Your task to perform on an android device: Add logitech g pro to the cart on newegg.com, then select checkout. Image 0: 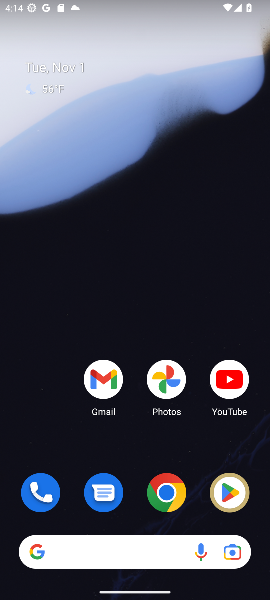
Step 0: click (164, 497)
Your task to perform on an android device: Add logitech g pro to the cart on newegg.com, then select checkout. Image 1: 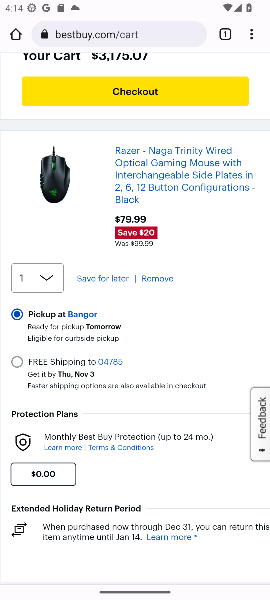
Step 1: click (93, 36)
Your task to perform on an android device: Add logitech g pro to the cart on newegg.com, then select checkout. Image 2: 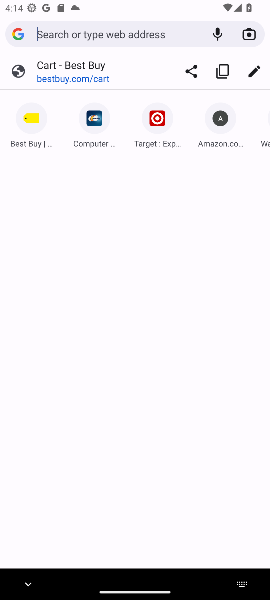
Step 2: type "newegg.com"
Your task to perform on an android device: Add logitech g pro to the cart on newegg.com, then select checkout. Image 3: 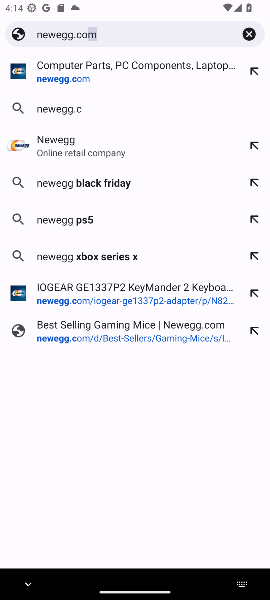
Step 3: type ""
Your task to perform on an android device: Add logitech g pro to the cart on newegg.com, then select checkout. Image 4: 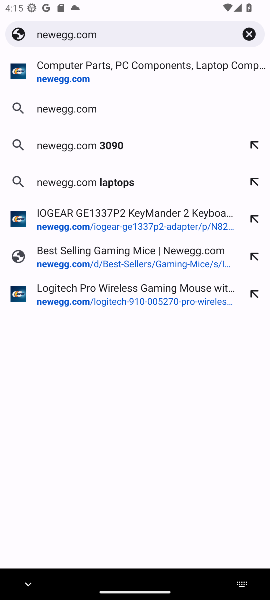
Step 4: click (107, 69)
Your task to perform on an android device: Add logitech g pro to the cart on newegg.com, then select checkout. Image 5: 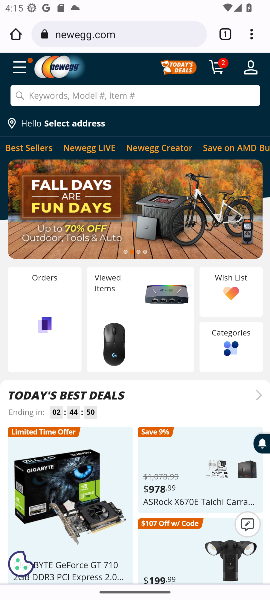
Step 5: click (228, 72)
Your task to perform on an android device: Add logitech g pro to the cart on newegg.com, then select checkout. Image 6: 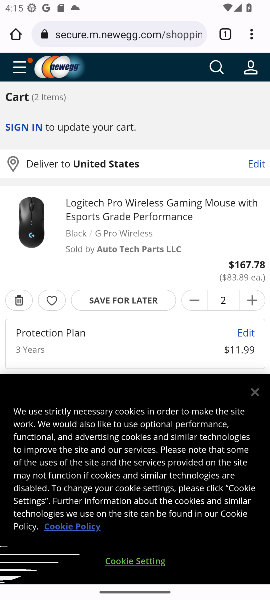
Step 6: click (12, 291)
Your task to perform on an android device: Add logitech g pro to the cart on newegg.com, then select checkout. Image 7: 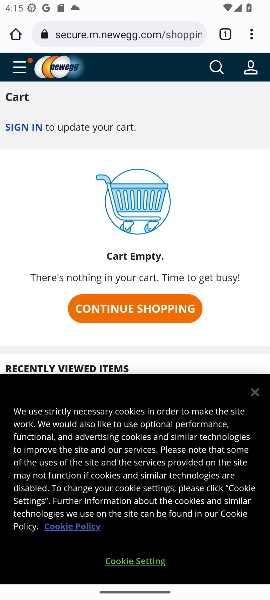
Step 7: click (215, 69)
Your task to perform on an android device: Add logitech g pro to the cart on newegg.com, then select checkout. Image 8: 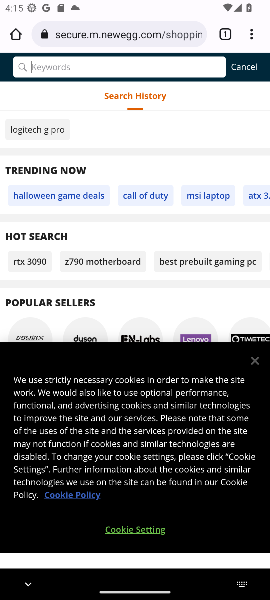
Step 8: click (156, 71)
Your task to perform on an android device: Add logitech g pro to the cart on newegg.com, then select checkout. Image 9: 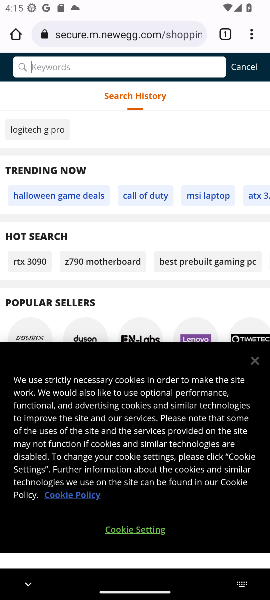
Step 9: type "logitech g pro"
Your task to perform on an android device: Add logitech g pro to the cart on newegg.com, then select checkout. Image 10: 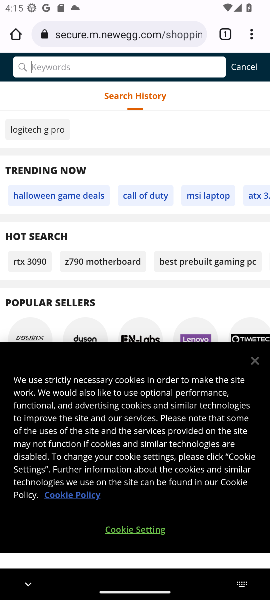
Step 10: type ""
Your task to perform on an android device: Add logitech g pro to the cart on newegg.com, then select checkout. Image 11: 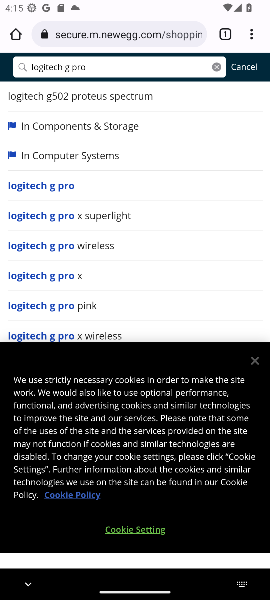
Step 11: click (63, 186)
Your task to perform on an android device: Add logitech g pro to the cart on newegg.com, then select checkout. Image 12: 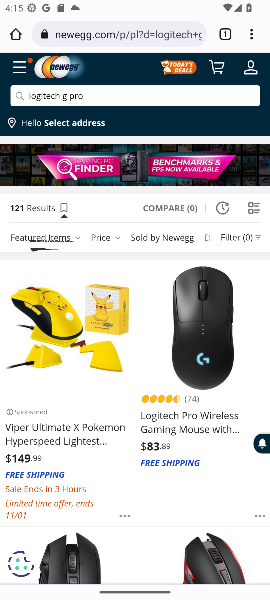
Step 12: click (191, 311)
Your task to perform on an android device: Add logitech g pro to the cart on newegg.com, then select checkout. Image 13: 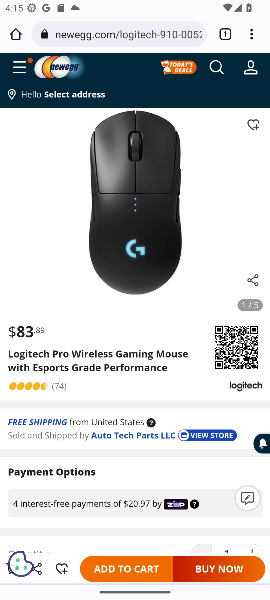
Step 13: click (110, 568)
Your task to perform on an android device: Add logitech g pro to the cart on newegg.com, then select checkout. Image 14: 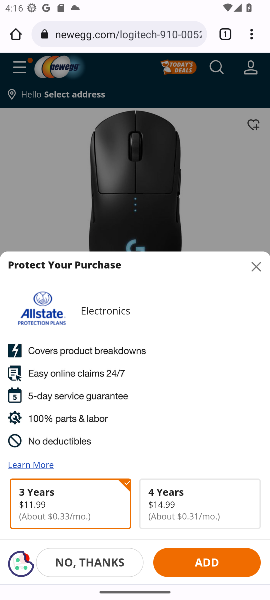
Step 14: click (195, 562)
Your task to perform on an android device: Add logitech g pro to the cart on newegg.com, then select checkout. Image 15: 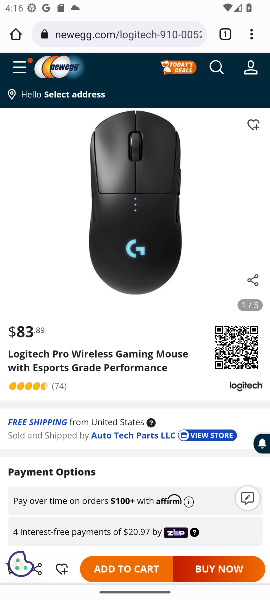
Step 15: drag from (203, 358) to (200, 159)
Your task to perform on an android device: Add logitech g pro to the cart on newegg.com, then select checkout. Image 16: 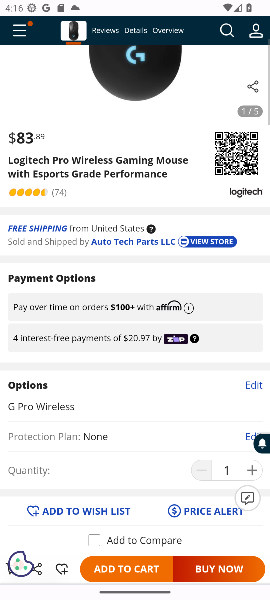
Step 16: drag from (192, 263) to (196, 488)
Your task to perform on an android device: Add logitech g pro to the cart on newegg.com, then select checkout. Image 17: 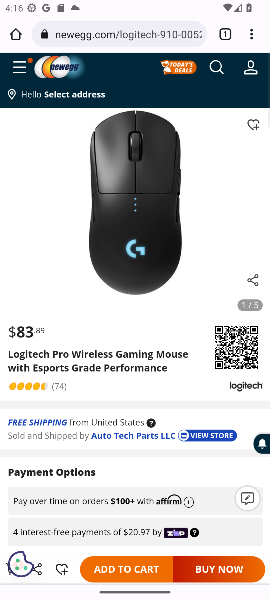
Step 17: drag from (210, 227) to (62, 206)
Your task to perform on an android device: Add logitech g pro to the cart on newegg.com, then select checkout. Image 18: 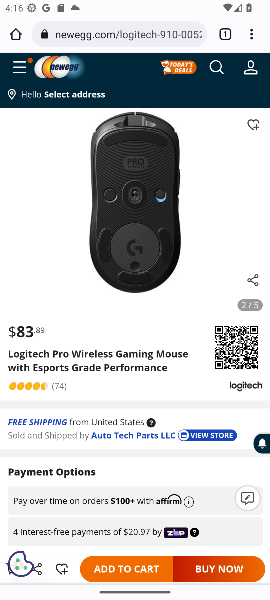
Step 18: drag from (227, 201) to (48, 206)
Your task to perform on an android device: Add logitech g pro to the cart on newegg.com, then select checkout. Image 19: 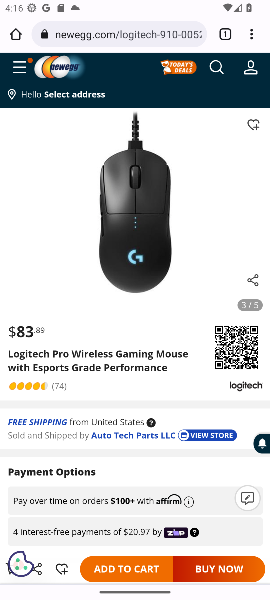
Step 19: drag from (207, 225) to (16, 226)
Your task to perform on an android device: Add logitech g pro to the cart on newegg.com, then select checkout. Image 20: 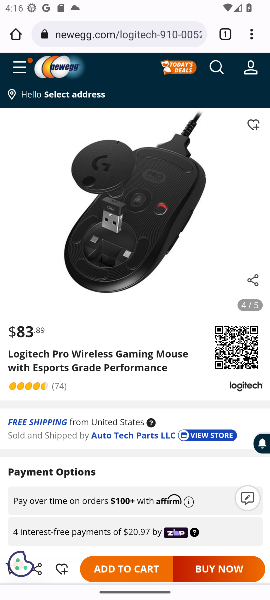
Step 20: drag from (191, 226) to (43, 221)
Your task to perform on an android device: Add logitech g pro to the cart on newegg.com, then select checkout. Image 21: 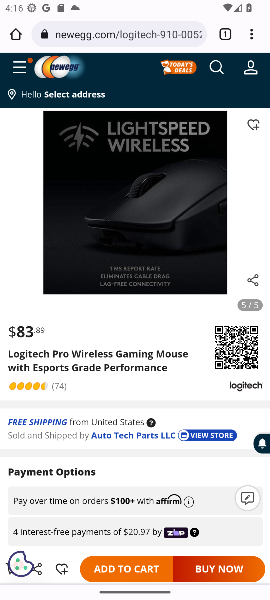
Step 21: drag from (194, 242) to (26, 243)
Your task to perform on an android device: Add logitech g pro to the cart on newegg.com, then select checkout. Image 22: 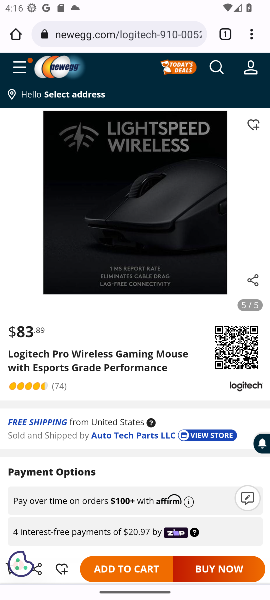
Step 22: drag from (154, 443) to (132, 153)
Your task to perform on an android device: Add logitech g pro to the cart on newegg.com, then select checkout. Image 23: 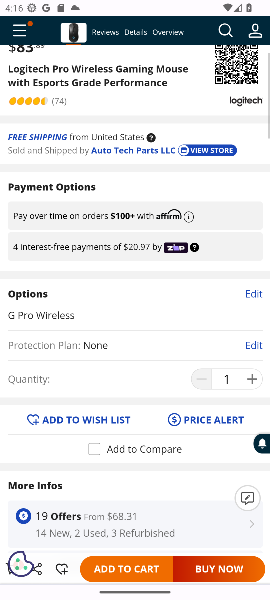
Step 23: drag from (135, 302) to (149, 139)
Your task to perform on an android device: Add logitech g pro to the cart on newegg.com, then select checkout. Image 24: 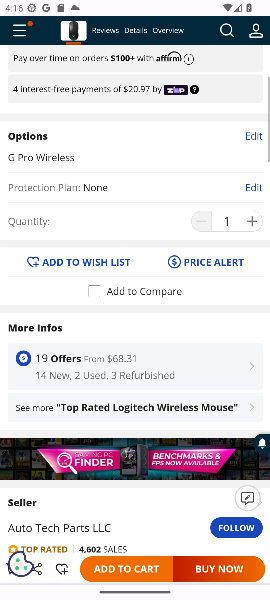
Step 24: drag from (164, 337) to (136, 193)
Your task to perform on an android device: Add logitech g pro to the cart on newegg.com, then select checkout. Image 25: 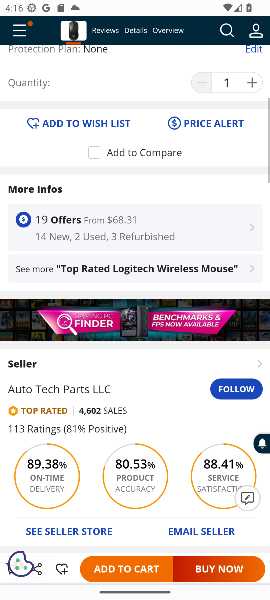
Step 25: drag from (126, 345) to (121, 250)
Your task to perform on an android device: Add logitech g pro to the cart on newegg.com, then select checkout. Image 26: 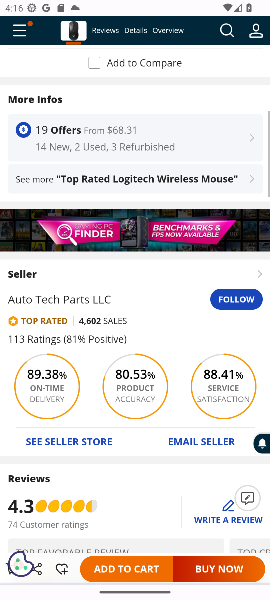
Step 26: drag from (142, 377) to (135, 256)
Your task to perform on an android device: Add logitech g pro to the cart on newegg.com, then select checkout. Image 27: 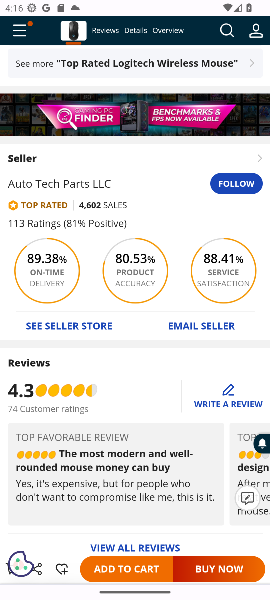
Step 27: click (141, 259)
Your task to perform on an android device: Add logitech g pro to the cart on newegg.com, then select checkout. Image 28: 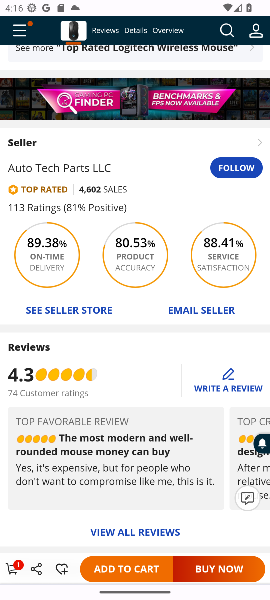
Step 28: drag from (176, 345) to (204, 92)
Your task to perform on an android device: Add logitech g pro to the cart on newegg.com, then select checkout. Image 29: 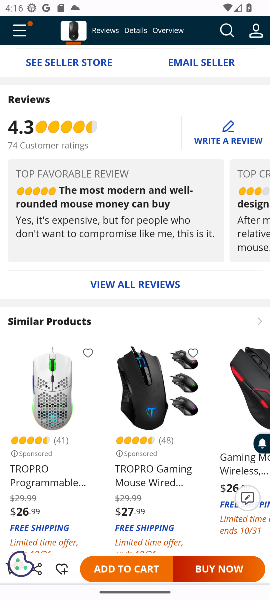
Step 29: drag from (161, 360) to (175, 213)
Your task to perform on an android device: Add logitech g pro to the cart on newegg.com, then select checkout. Image 30: 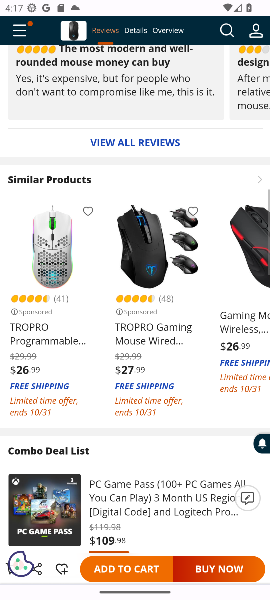
Step 30: drag from (161, 352) to (198, 189)
Your task to perform on an android device: Add logitech g pro to the cart on newegg.com, then select checkout. Image 31: 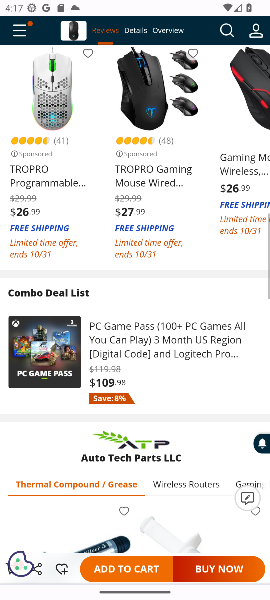
Step 31: drag from (168, 360) to (195, 213)
Your task to perform on an android device: Add logitech g pro to the cart on newegg.com, then select checkout. Image 32: 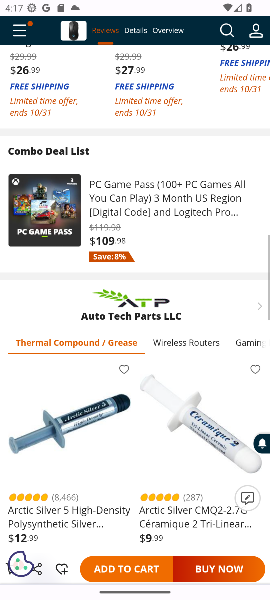
Step 32: drag from (169, 347) to (191, 259)
Your task to perform on an android device: Add logitech g pro to the cart on newegg.com, then select checkout. Image 33: 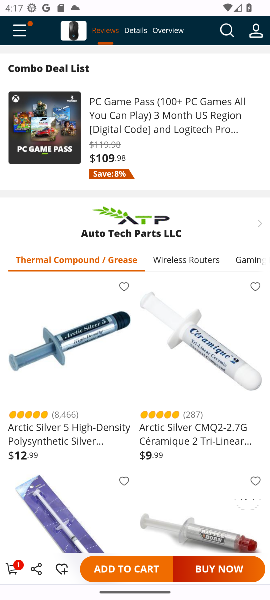
Step 33: drag from (178, 350) to (196, 217)
Your task to perform on an android device: Add logitech g pro to the cart on newegg.com, then select checkout. Image 34: 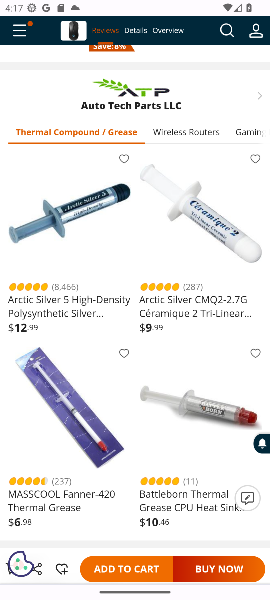
Step 34: drag from (203, 322) to (228, 192)
Your task to perform on an android device: Add logitech g pro to the cart on newegg.com, then select checkout. Image 35: 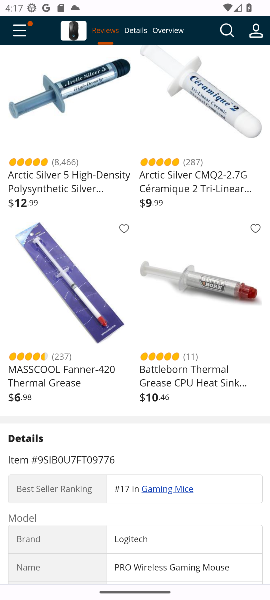
Step 35: drag from (209, 272) to (214, 157)
Your task to perform on an android device: Add logitech g pro to the cart on newegg.com, then select checkout. Image 36: 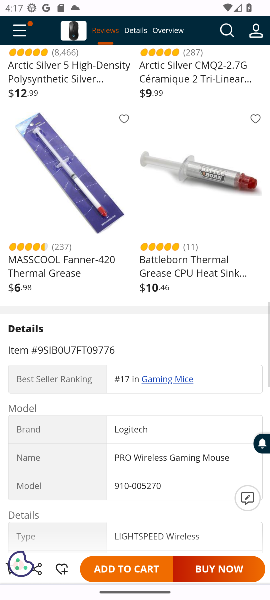
Step 36: drag from (200, 309) to (185, 153)
Your task to perform on an android device: Add logitech g pro to the cart on newegg.com, then select checkout. Image 37: 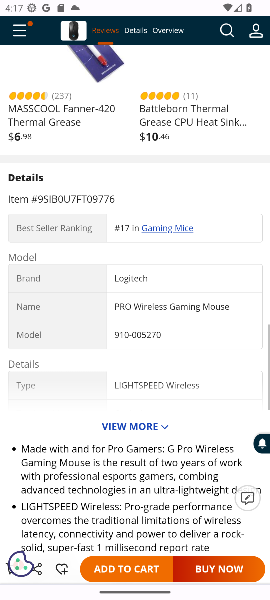
Step 37: drag from (167, 317) to (170, 132)
Your task to perform on an android device: Add logitech g pro to the cart on newegg.com, then select checkout. Image 38: 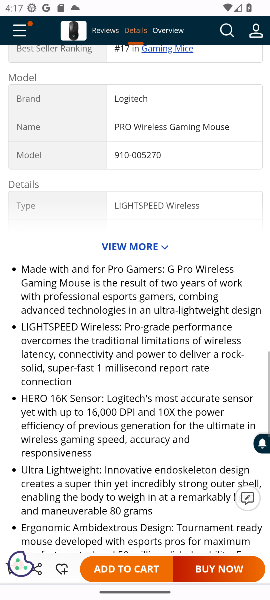
Step 38: drag from (147, 313) to (155, 178)
Your task to perform on an android device: Add logitech g pro to the cart on newegg.com, then select checkout. Image 39: 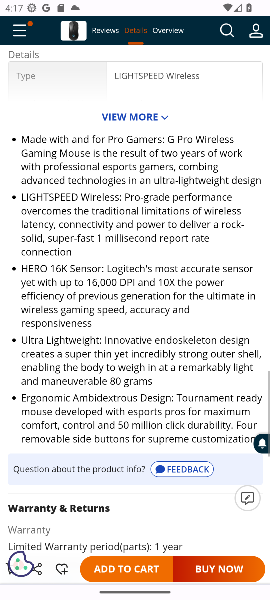
Step 39: drag from (141, 308) to (159, 209)
Your task to perform on an android device: Add logitech g pro to the cart on newegg.com, then select checkout. Image 40: 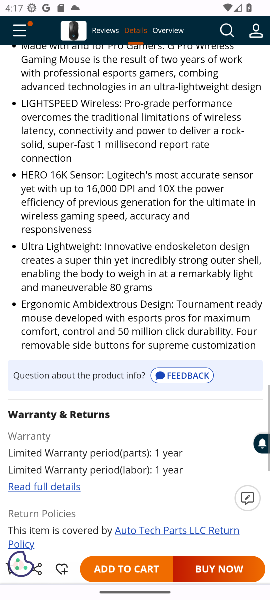
Step 40: drag from (149, 277) to (177, 194)
Your task to perform on an android device: Add logitech g pro to the cart on newegg.com, then select checkout. Image 41: 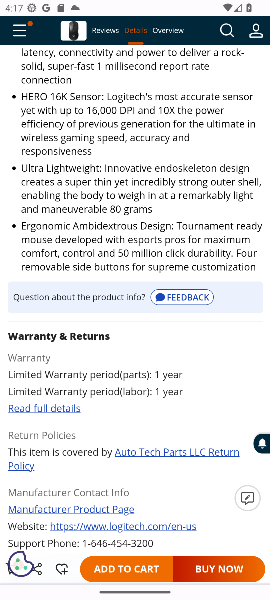
Step 41: drag from (122, 381) to (153, 224)
Your task to perform on an android device: Add logitech g pro to the cart on newegg.com, then select checkout. Image 42: 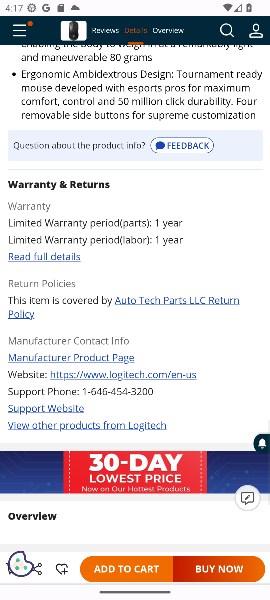
Step 42: drag from (126, 359) to (137, 290)
Your task to perform on an android device: Add logitech g pro to the cart on newegg.com, then select checkout. Image 43: 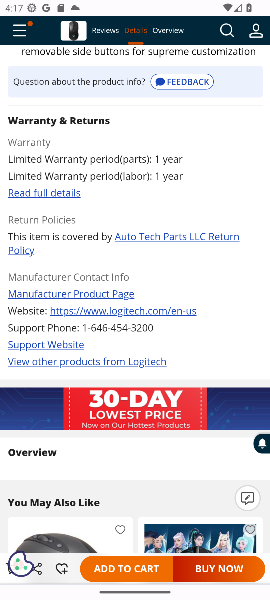
Step 43: drag from (111, 390) to (150, 250)
Your task to perform on an android device: Add logitech g pro to the cart on newegg.com, then select checkout. Image 44: 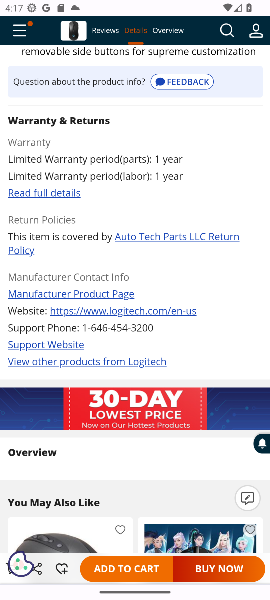
Step 44: drag from (128, 318) to (157, 224)
Your task to perform on an android device: Add logitech g pro to the cart on newegg.com, then select checkout. Image 45: 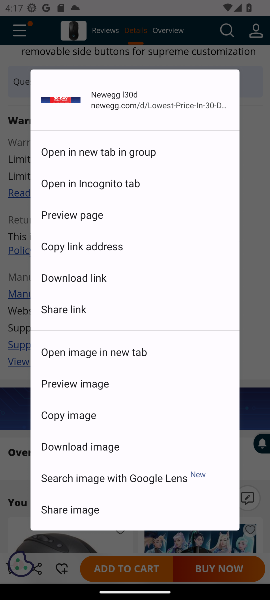
Step 45: drag from (94, 345) to (173, 172)
Your task to perform on an android device: Add logitech g pro to the cart on newegg.com, then select checkout. Image 46: 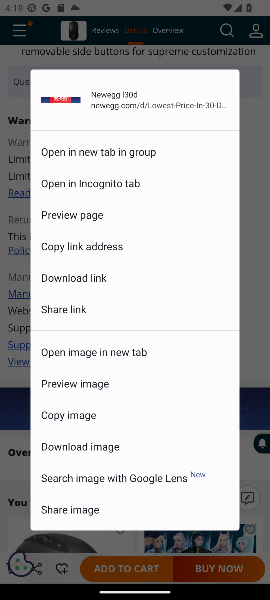
Step 46: drag from (156, 193) to (176, 126)
Your task to perform on an android device: Add logitech g pro to the cart on newegg.com, then select checkout. Image 47: 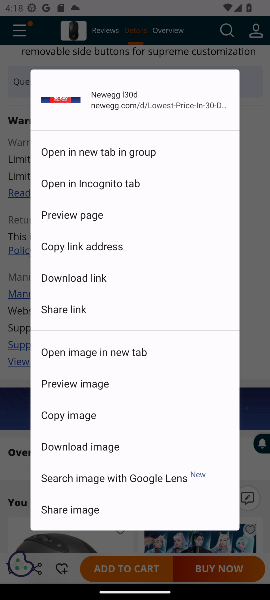
Step 47: click (250, 278)
Your task to perform on an android device: Add logitech g pro to the cart on newegg.com, then select checkout. Image 48: 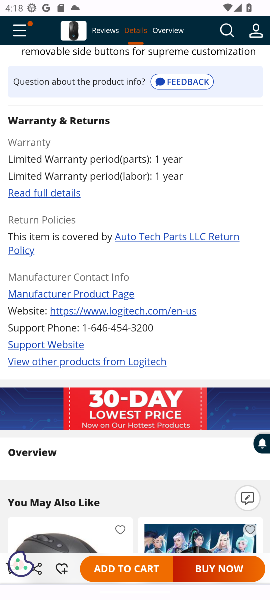
Step 48: click (250, 278)
Your task to perform on an android device: Add logitech g pro to the cart on newegg.com, then select checkout. Image 49: 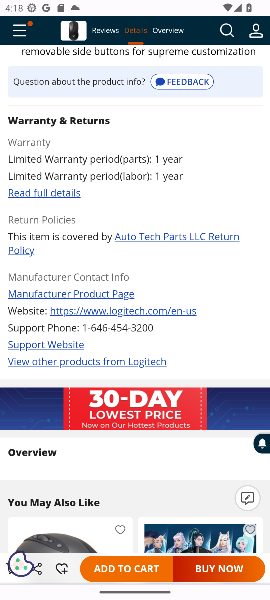
Step 49: drag from (221, 318) to (256, 216)
Your task to perform on an android device: Add logitech g pro to the cart on newegg.com, then select checkout. Image 50: 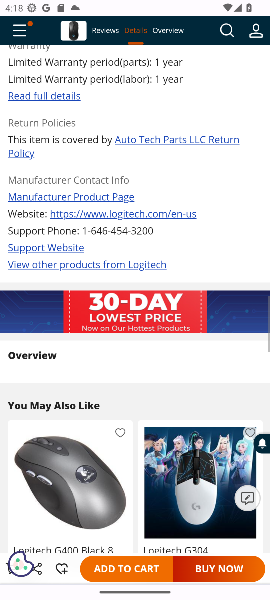
Step 50: drag from (228, 154) to (244, 392)
Your task to perform on an android device: Add logitech g pro to the cart on newegg.com, then select checkout. Image 51: 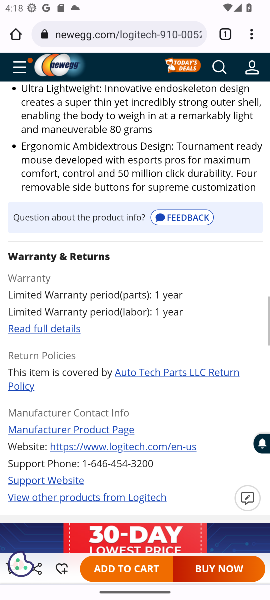
Step 51: drag from (252, 127) to (216, 358)
Your task to perform on an android device: Add logitech g pro to the cart on newegg.com, then select checkout. Image 52: 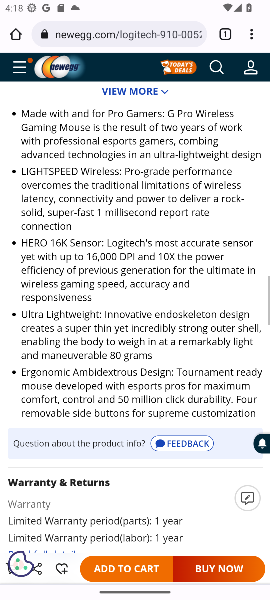
Step 52: drag from (213, 138) to (229, 330)
Your task to perform on an android device: Add logitech g pro to the cart on newegg.com, then select checkout. Image 53: 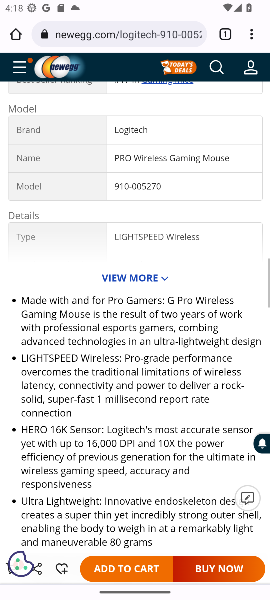
Step 53: drag from (241, 175) to (256, 319)
Your task to perform on an android device: Add logitech g pro to the cart on newegg.com, then select checkout. Image 54: 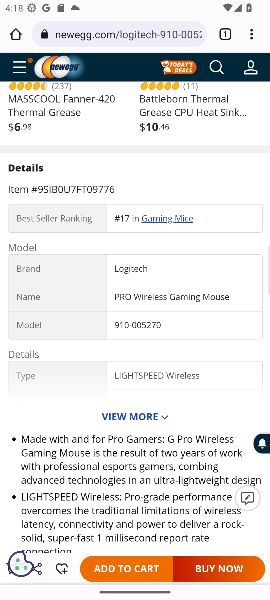
Step 54: drag from (232, 180) to (231, 319)
Your task to perform on an android device: Add logitech g pro to the cart on newegg.com, then select checkout. Image 55: 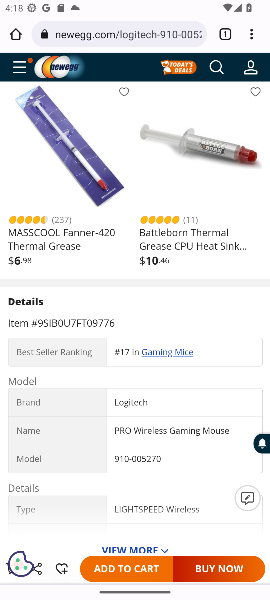
Step 55: drag from (178, 124) to (168, 348)
Your task to perform on an android device: Add logitech g pro to the cart on newegg.com, then select checkout. Image 56: 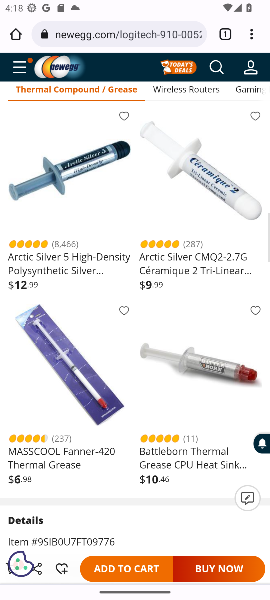
Step 56: drag from (178, 177) to (177, 370)
Your task to perform on an android device: Add logitech g pro to the cart on newegg.com, then select checkout. Image 57: 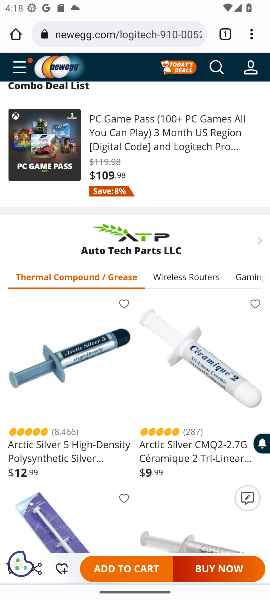
Step 57: drag from (113, 66) to (120, 440)
Your task to perform on an android device: Add logitech g pro to the cart on newegg.com, then select checkout. Image 58: 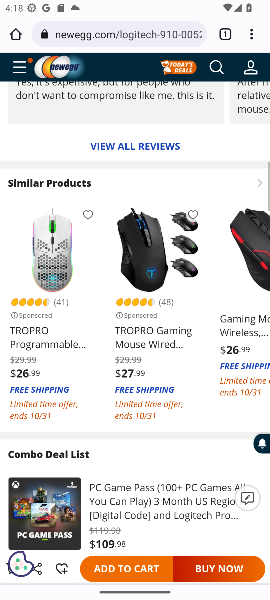
Step 58: drag from (124, 396) to (140, 538)
Your task to perform on an android device: Add logitech g pro to the cart on newegg.com, then select checkout. Image 59: 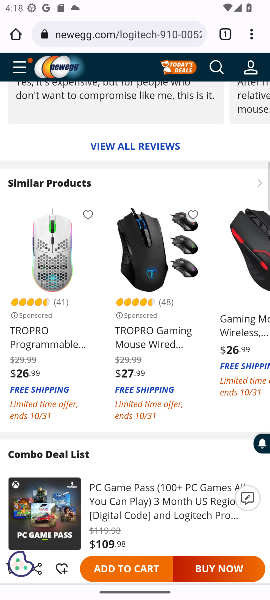
Step 59: drag from (101, 361) to (108, 542)
Your task to perform on an android device: Add logitech g pro to the cart on newegg.com, then select checkout. Image 60: 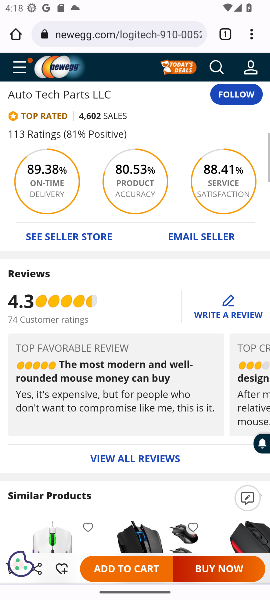
Step 60: drag from (92, 280) to (109, 487)
Your task to perform on an android device: Add logitech g pro to the cart on newegg.com, then select checkout. Image 61: 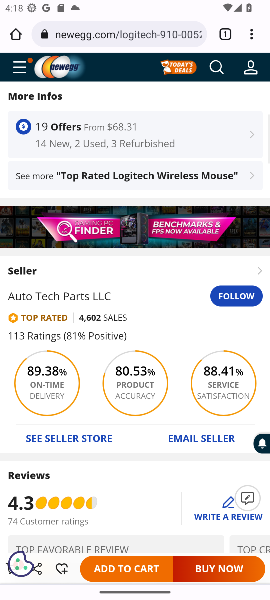
Step 61: drag from (139, 285) to (135, 483)
Your task to perform on an android device: Add logitech g pro to the cart on newegg.com, then select checkout. Image 62: 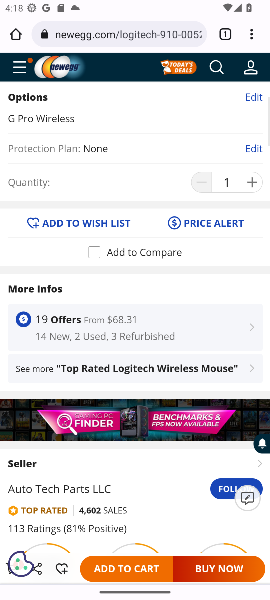
Step 62: drag from (133, 368) to (125, 526)
Your task to perform on an android device: Add logitech g pro to the cart on newegg.com, then select checkout. Image 63: 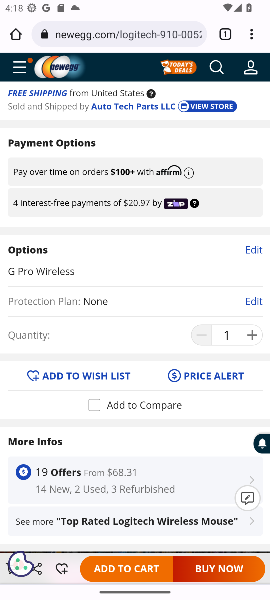
Step 63: click (120, 467)
Your task to perform on an android device: Add logitech g pro to the cart on newegg.com, then select checkout. Image 64: 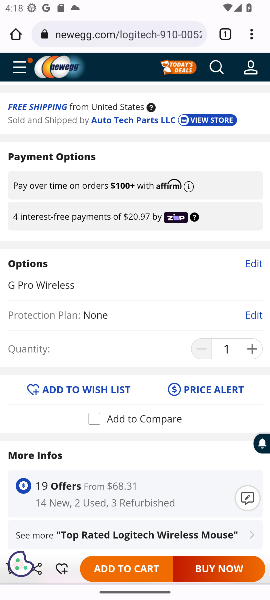
Step 64: drag from (159, 229) to (169, 510)
Your task to perform on an android device: Add logitech g pro to the cart on newegg.com, then select checkout. Image 65: 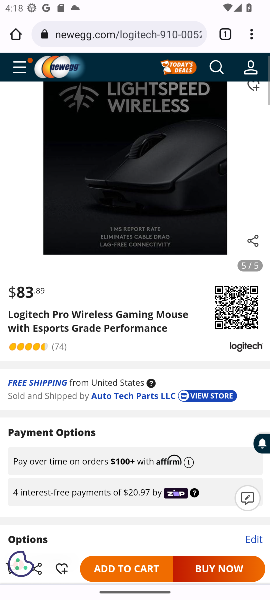
Step 65: drag from (170, 279) to (171, 488)
Your task to perform on an android device: Add logitech g pro to the cart on newegg.com, then select checkout. Image 66: 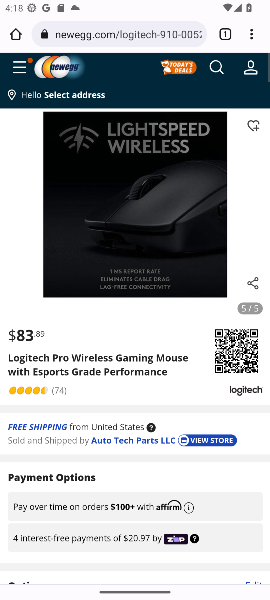
Step 66: click (137, 583)
Your task to perform on an android device: Add logitech g pro to the cart on newegg.com, then select checkout. Image 67: 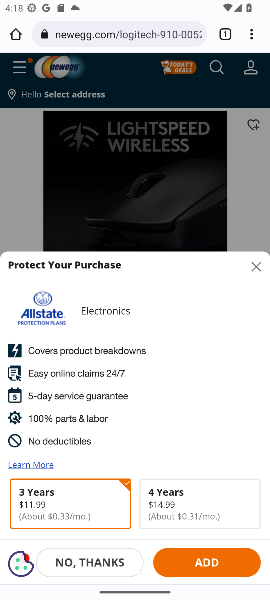
Step 67: click (241, 562)
Your task to perform on an android device: Add logitech g pro to the cart on newegg.com, then select checkout. Image 68: 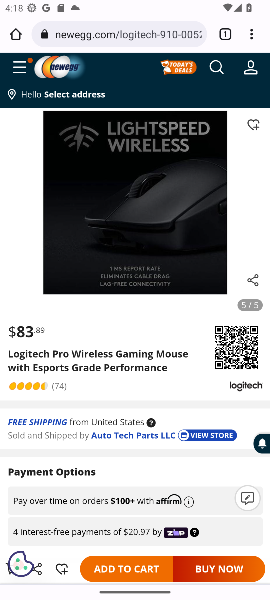
Step 68: drag from (180, 522) to (204, 253)
Your task to perform on an android device: Add logitech g pro to the cart on newegg.com, then select checkout. Image 69: 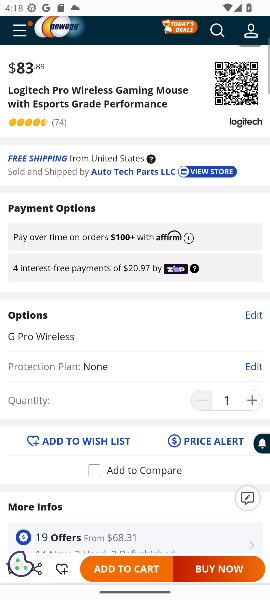
Step 69: drag from (169, 437) to (184, 251)
Your task to perform on an android device: Add logitech g pro to the cart on newegg.com, then select checkout. Image 70: 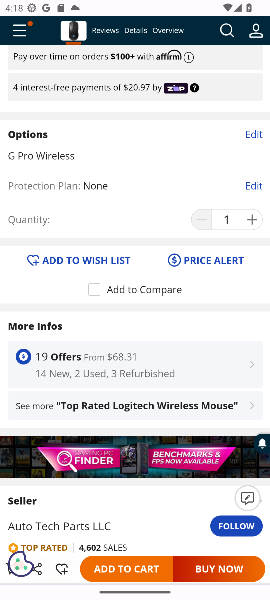
Step 70: drag from (186, 353) to (201, 164)
Your task to perform on an android device: Add logitech g pro to the cart on newegg.com, then select checkout. Image 71: 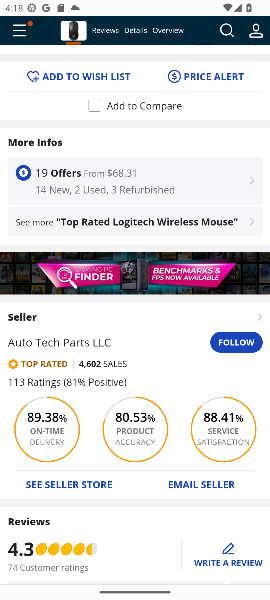
Step 71: drag from (194, 312) to (213, 169)
Your task to perform on an android device: Add logitech g pro to the cart on newegg.com, then select checkout. Image 72: 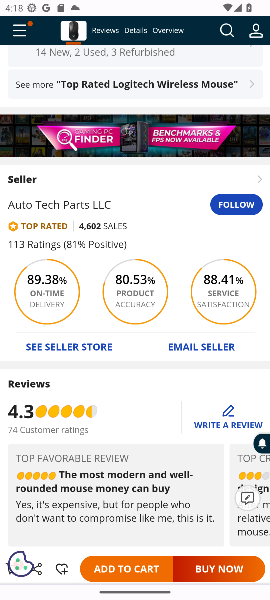
Step 72: drag from (215, 309) to (215, 175)
Your task to perform on an android device: Add logitech g pro to the cart on newegg.com, then select checkout. Image 73: 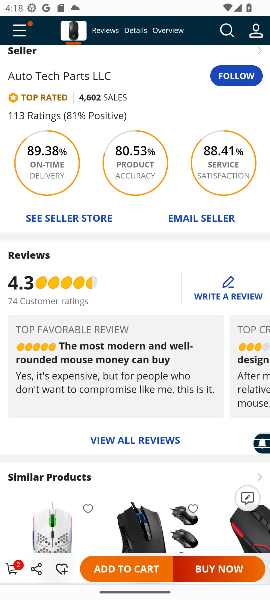
Step 73: drag from (195, 322) to (203, 155)
Your task to perform on an android device: Add logitech g pro to the cart on newegg.com, then select checkout. Image 74: 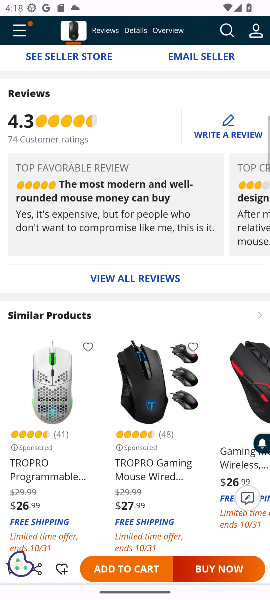
Step 74: drag from (192, 292) to (205, 172)
Your task to perform on an android device: Add logitech g pro to the cart on newegg.com, then select checkout. Image 75: 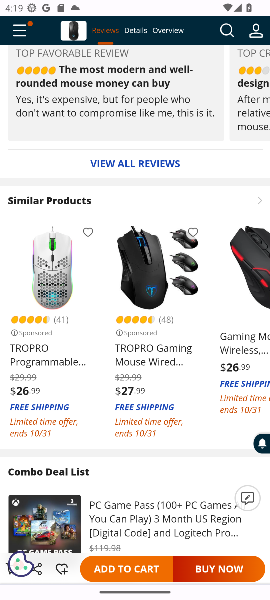
Step 75: drag from (218, 268) to (218, 143)
Your task to perform on an android device: Add logitech g pro to the cart on newegg.com, then select checkout. Image 76: 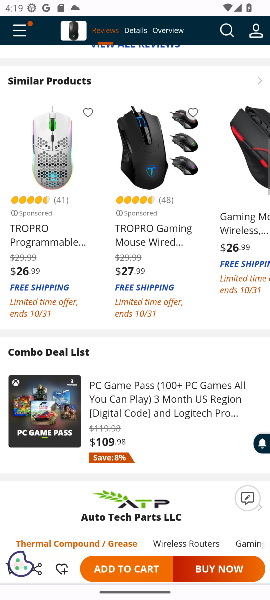
Step 76: drag from (222, 272) to (217, 176)
Your task to perform on an android device: Add logitech g pro to the cart on newegg.com, then select checkout. Image 77: 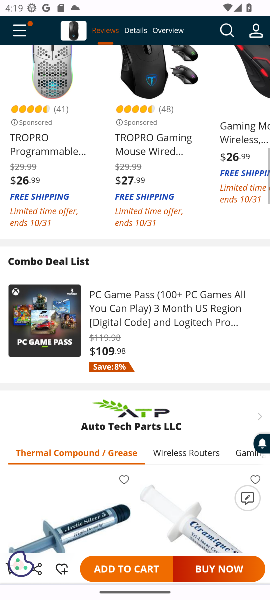
Step 77: drag from (219, 254) to (221, 183)
Your task to perform on an android device: Add logitech g pro to the cart on newegg.com, then select checkout. Image 78: 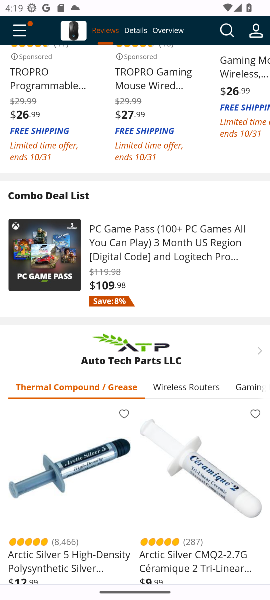
Step 78: drag from (210, 272) to (224, 163)
Your task to perform on an android device: Add logitech g pro to the cart on newegg.com, then select checkout. Image 79: 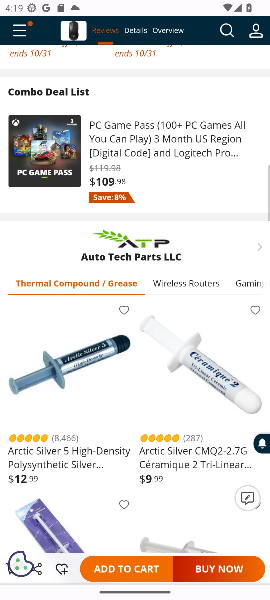
Step 79: drag from (219, 273) to (225, 169)
Your task to perform on an android device: Add logitech g pro to the cart on newegg.com, then select checkout. Image 80: 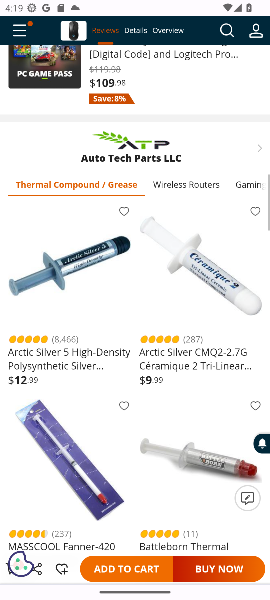
Step 80: drag from (215, 268) to (225, 194)
Your task to perform on an android device: Add logitech g pro to the cart on newegg.com, then select checkout. Image 81: 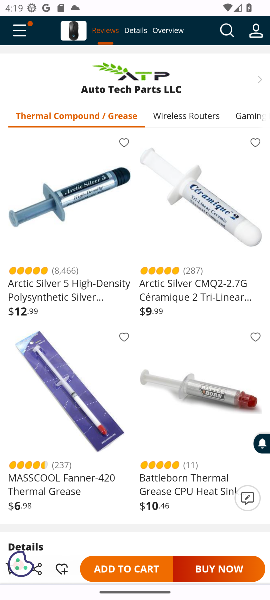
Step 81: drag from (222, 298) to (218, 191)
Your task to perform on an android device: Add logitech g pro to the cart on newegg.com, then select checkout. Image 82: 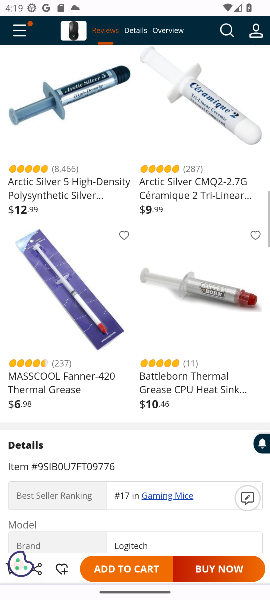
Step 82: drag from (188, 310) to (196, 221)
Your task to perform on an android device: Add logitech g pro to the cart on newegg.com, then select checkout. Image 83: 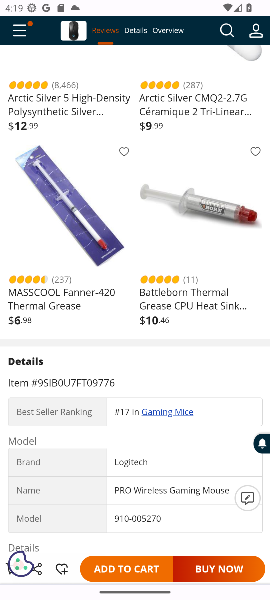
Step 83: click (193, 458)
Your task to perform on an android device: Add logitech g pro to the cart on newegg.com, then select checkout. Image 84: 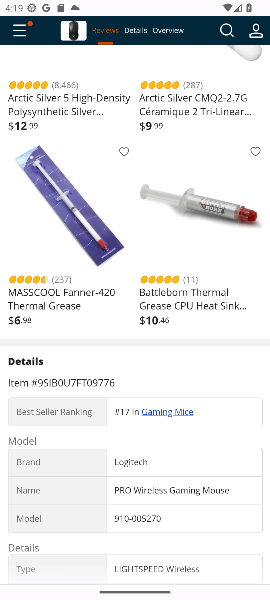
Step 84: drag from (214, 163) to (212, 400)
Your task to perform on an android device: Add logitech g pro to the cart on newegg.com, then select checkout. Image 85: 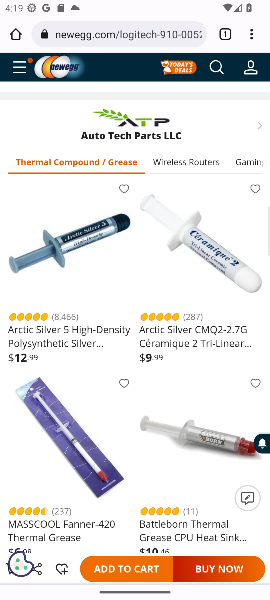
Step 85: drag from (199, 297) to (188, 421)
Your task to perform on an android device: Add logitech g pro to the cart on newegg.com, then select checkout. Image 86: 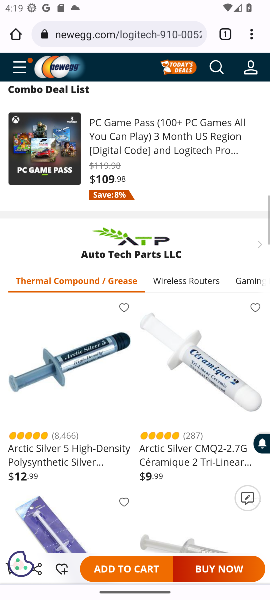
Step 86: drag from (193, 210) to (196, 408)
Your task to perform on an android device: Add logitech g pro to the cart on newegg.com, then select checkout. Image 87: 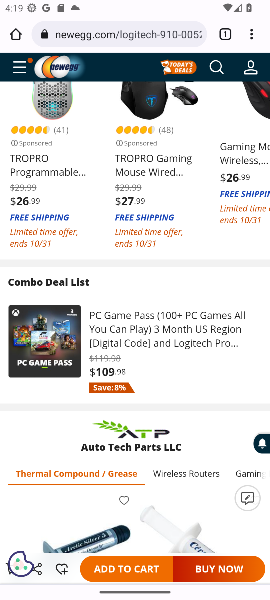
Step 87: click (200, 490)
Your task to perform on an android device: Add logitech g pro to the cart on newegg.com, then select checkout. Image 88: 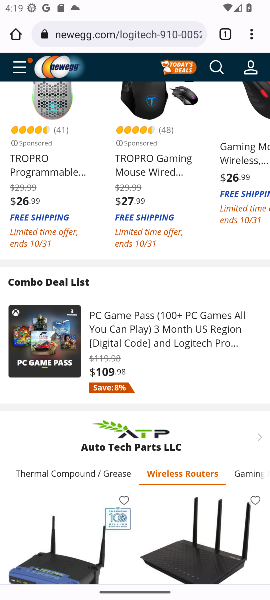
Step 88: drag from (223, 273) to (204, 430)
Your task to perform on an android device: Add logitech g pro to the cart on newegg.com, then select checkout. Image 89: 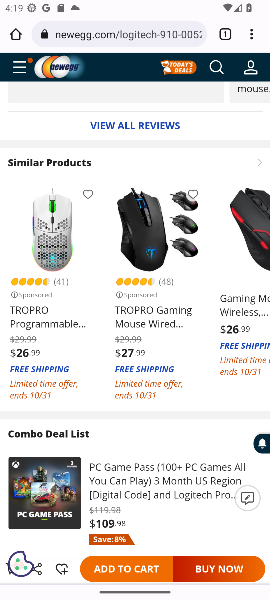
Step 89: click (144, 379)
Your task to perform on an android device: Add logitech g pro to the cart on newegg.com, then select checkout. Image 90: 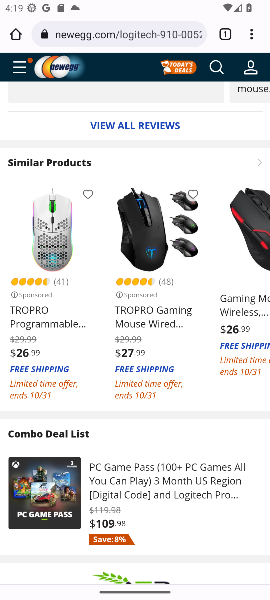
Step 90: drag from (183, 135) to (160, 384)
Your task to perform on an android device: Add logitech g pro to the cart on newegg.com, then select checkout. Image 91: 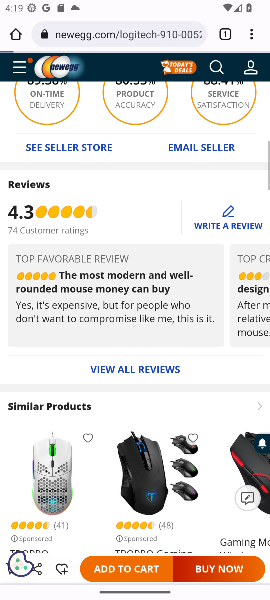
Step 91: drag from (192, 130) to (190, 383)
Your task to perform on an android device: Add logitech g pro to the cart on newegg.com, then select checkout. Image 92: 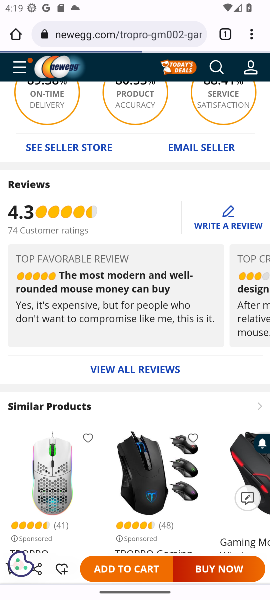
Step 92: click (185, 466)
Your task to perform on an android device: Add logitech g pro to the cart on newegg.com, then select checkout. Image 93: 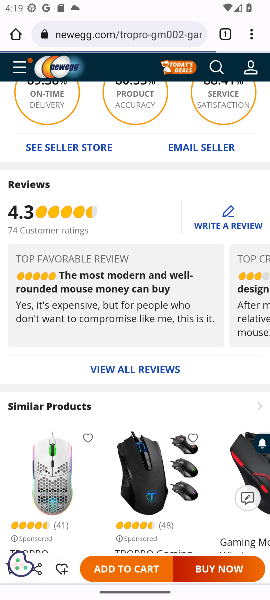
Step 93: drag from (201, 166) to (165, 471)
Your task to perform on an android device: Add logitech g pro to the cart on newegg.com, then select checkout. Image 94: 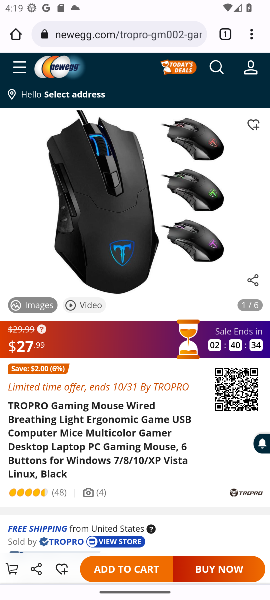
Step 94: drag from (178, 181) to (160, 479)
Your task to perform on an android device: Add logitech g pro to the cart on newegg.com, then select checkout. Image 95: 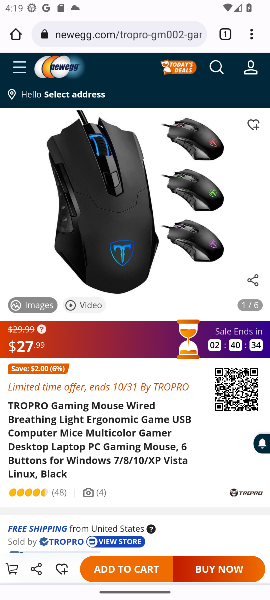
Step 95: drag from (186, 217) to (189, 466)
Your task to perform on an android device: Add logitech g pro to the cart on newegg.com, then select checkout. Image 96: 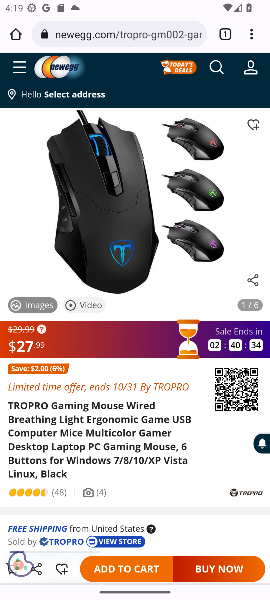
Step 96: click (198, 506)
Your task to perform on an android device: Add logitech g pro to the cart on newegg.com, then select checkout. Image 97: 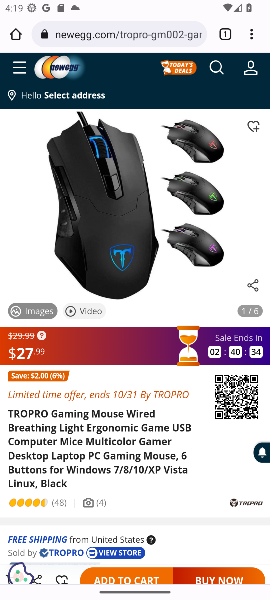
Step 97: drag from (204, 196) to (209, 467)
Your task to perform on an android device: Add logitech g pro to the cart on newegg.com, then select checkout. Image 98: 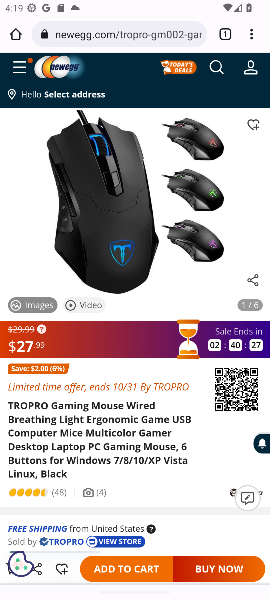
Step 98: click (255, 136)
Your task to perform on an android device: Add logitech g pro to the cart on newegg.com, then select checkout. Image 99: 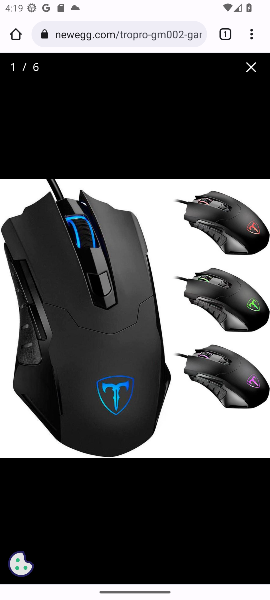
Step 99: click (130, 567)
Your task to perform on an android device: Add logitech g pro to the cart on newegg.com, then select checkout. Image 100: 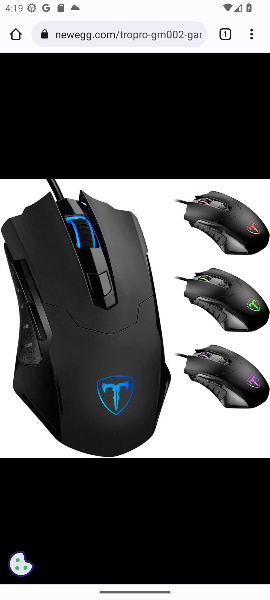
Step 100: task complete